Your task to perform on an android device: Show me the alarms in the clock app Image 0: 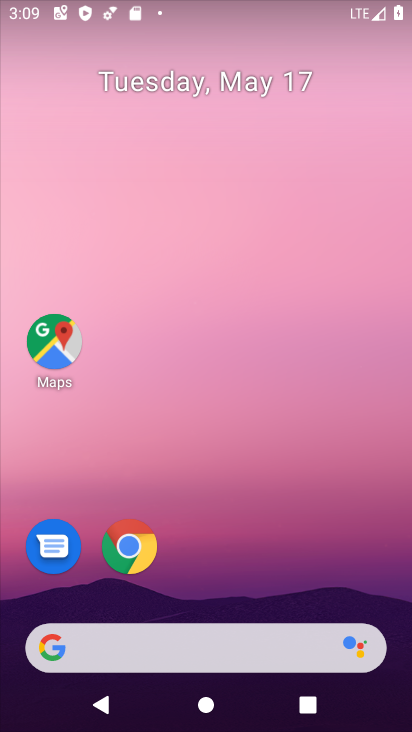
Step 0: press home button
Your task to perform on an android device: Show me the alarms in the clock app Image 1: 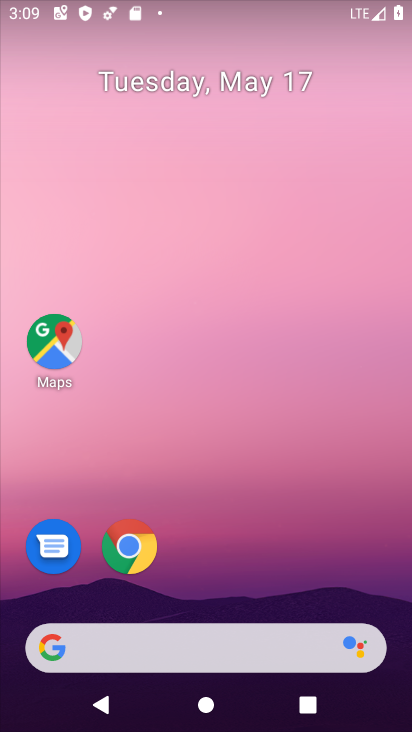
Step 1: drag from (280, 558) to (256, 58)
Your task to perform on an android device: Show me the alarms in the clock app Image 2: 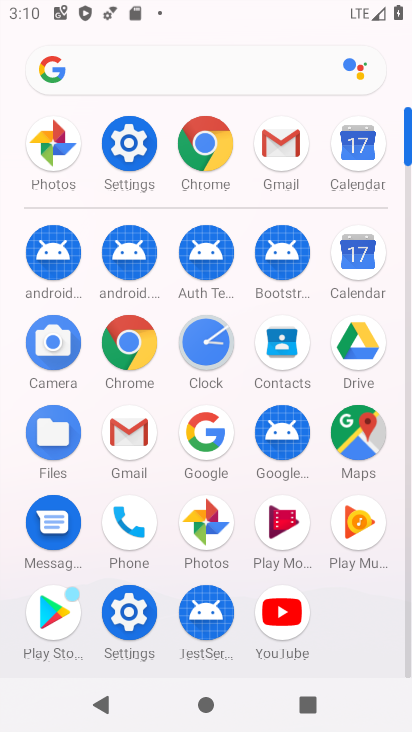
Step 2: click (203, 344)
Your task to perform on an android device: Show me the alarms in the clock app Image 3: 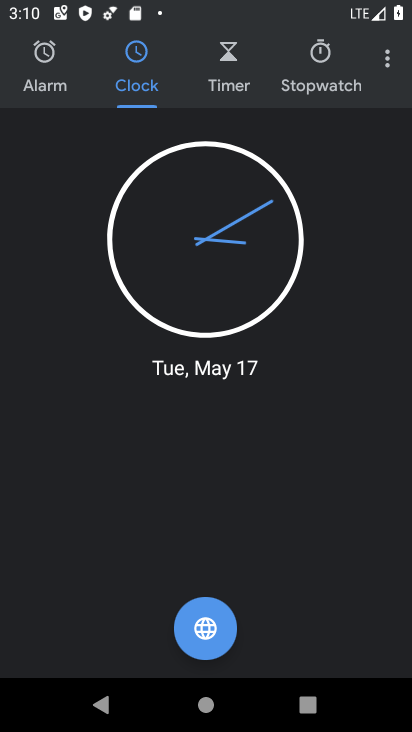
Step 3: click (42, 71)
Your task to perform on an android device: Show me the alarms in the clock app Image 4: 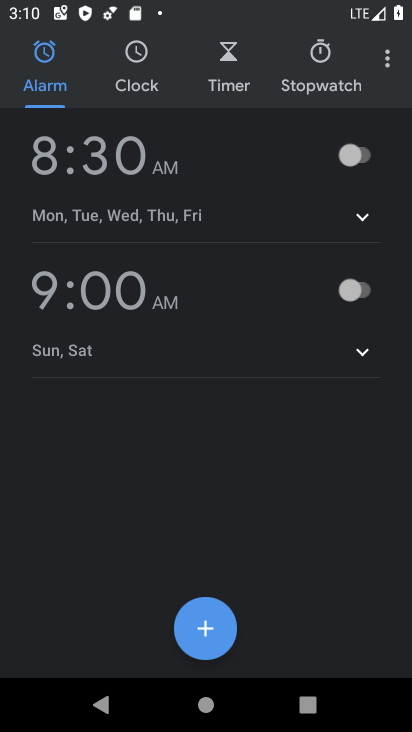
Step 4: task complete